Your task to perform on an android device: Is it going to rain this weekend? Image 0: 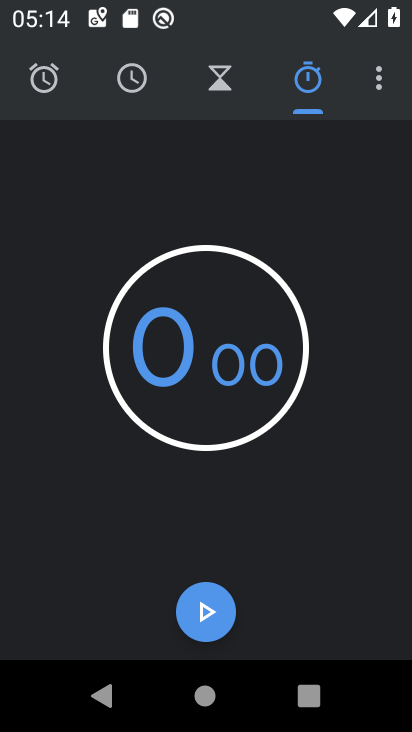
Step 0: press home button
Your task to perform on an android device: Is it going to rain this weekend? Image 1: 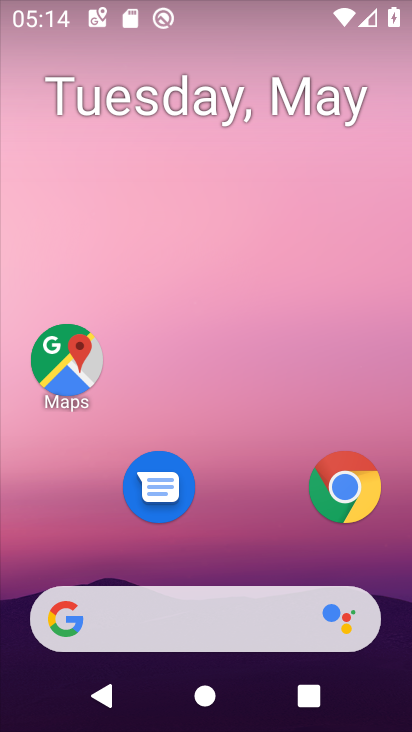
Step 1: click (244, 614)
Your task to perform on an android device: Is it going to rain this weekend? Image 2: 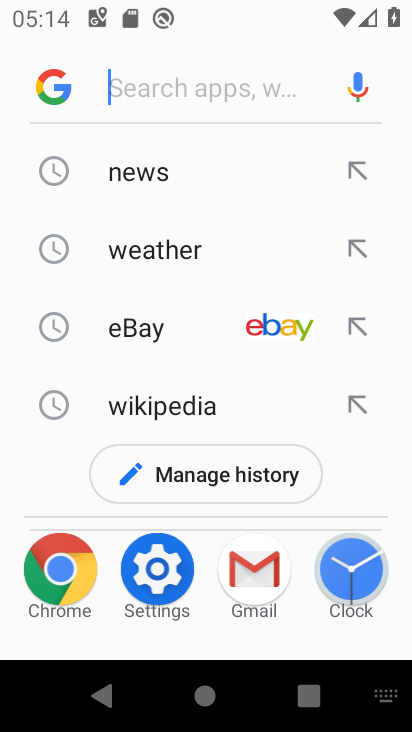
Step 2: drag from (156, 166) to (153, 244)
Your task to perform on an android device: Is it going to rain this weekend? Image 3: 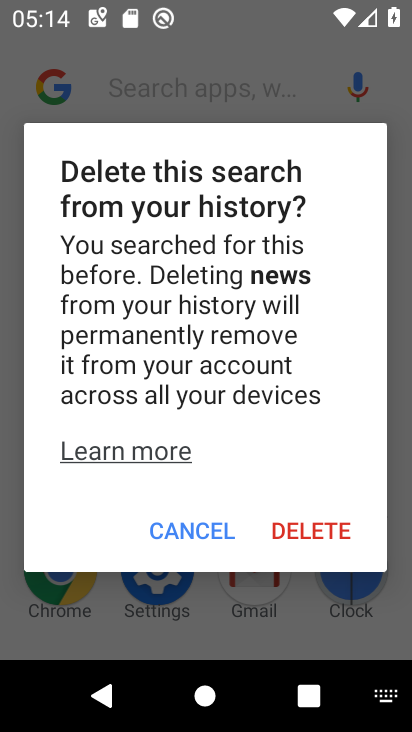
Step 3: click (222, 528)
Your task to perform on an android device: Is it going to rain this weekend? Image 4: 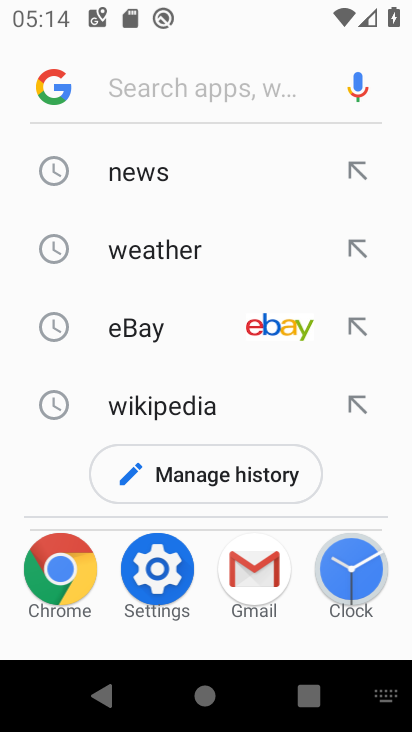
Step 4: click (152, 247)
Your task to perform on an android device: Is it going to rain this weekend? Image 5: 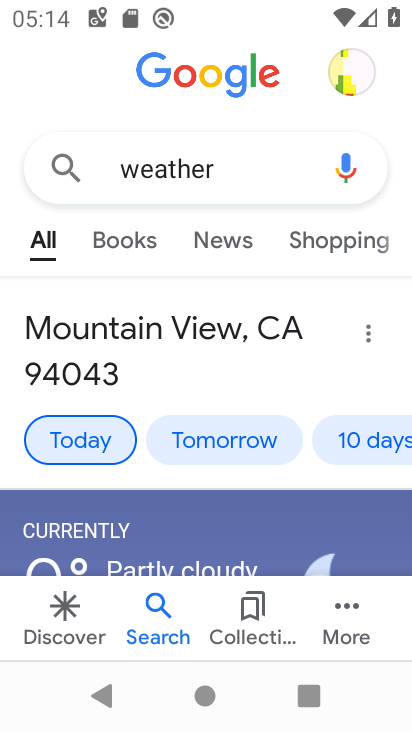
Step 5: click (367, 436)
Your task to perform on an android device: Is it going to rain this weekend? Image 6: 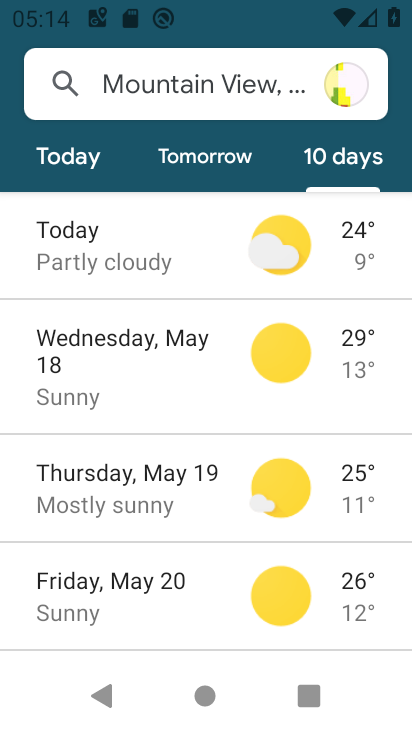
Step 6: task complete